Your task to perform on an android device: make emails show in primary in the gmail app Image 0: 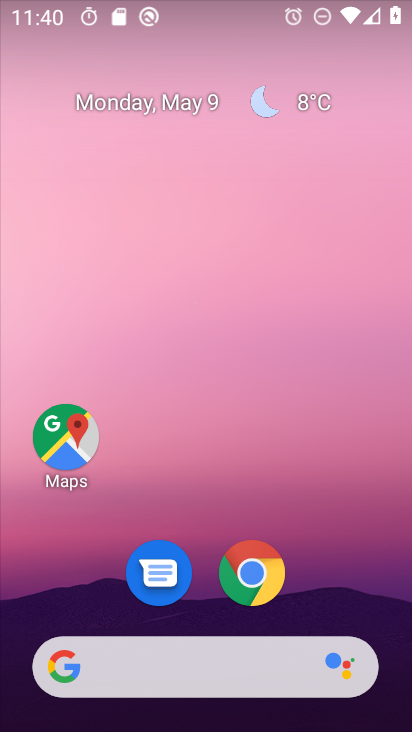
Step 0: drag from (369, 567) to (252, 231)
Your task to perform on an android device: make emails show in primary in the gmail app Image 1: 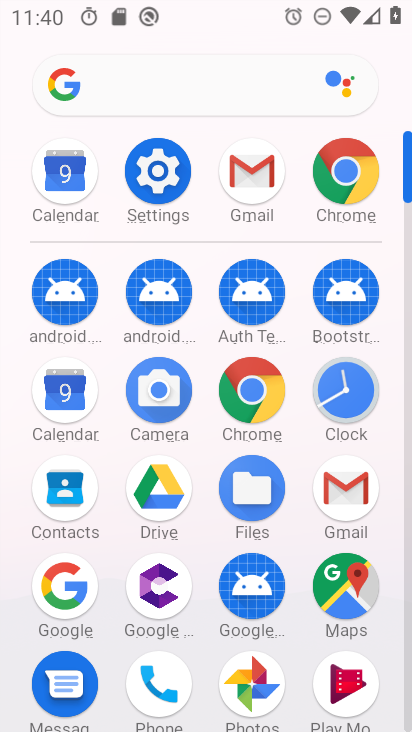
Step 1: click (344, 496)
Your task to perform on an android device: make emails show in primary in the gmail app Image 2: 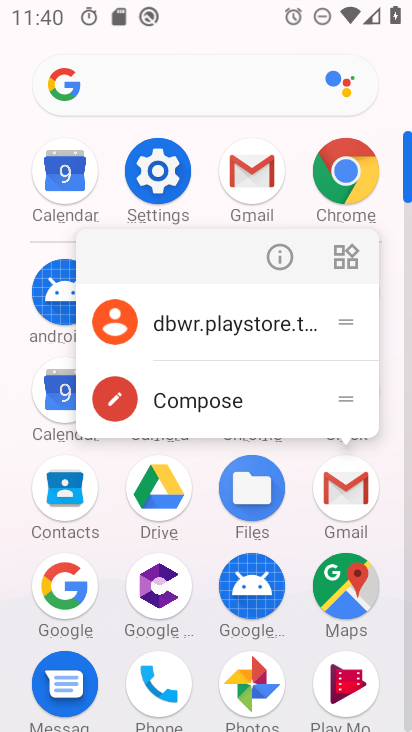
Step 2: click (344, 496)
Your task to perform on an android device: make emails show in primary in the gmail app Image 3: 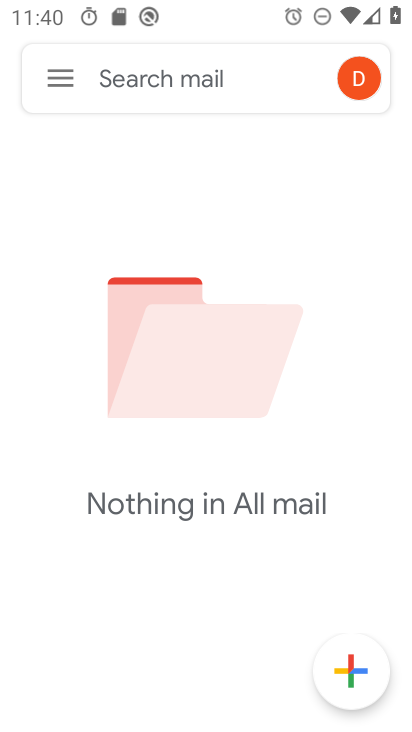
Step 3: click (52, 78)
Your task to perform on an android device: make emails show in primary in the gmail app Image 4: 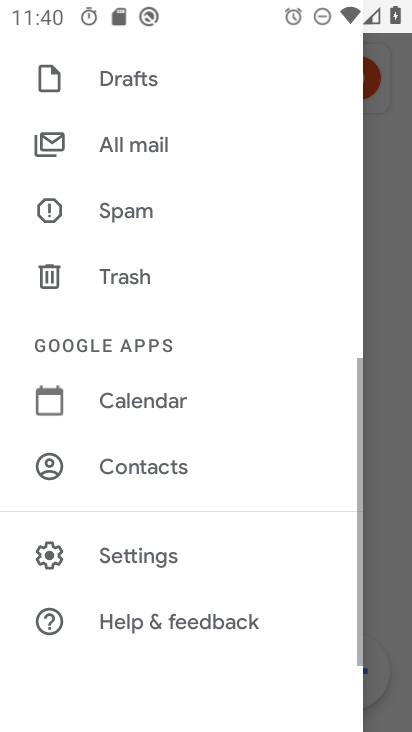
Step 4: drag from (143, 507) to (229, 272)
Your task to perform on an android device: make emails show in primary in the gmail app Image 5: 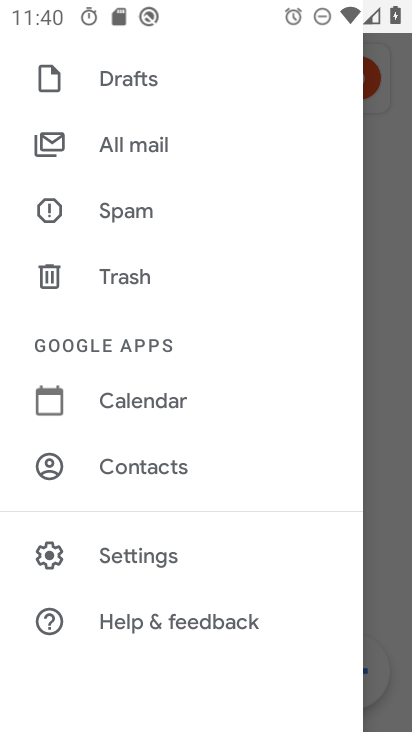
Step 5: click (144, 559)
Your task to perform on an android device: make emails show in primary in the gmail app Image 6: 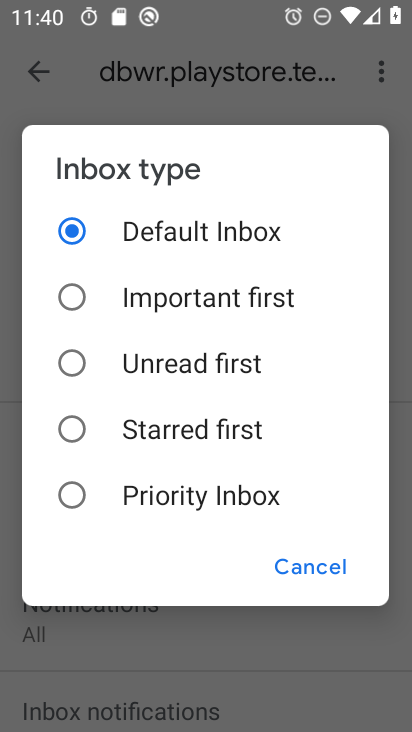
Step 6: click (317, 561)
Your task to perform on an android device: make emails show in primary in the gmail app Image 7: 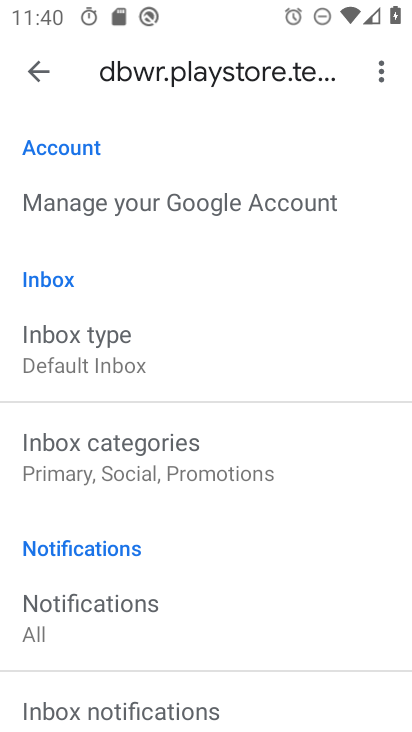
Step 7: click (163, 470)
Your task to perform on an android device: make emails show in primary in the gmail app Image 8: 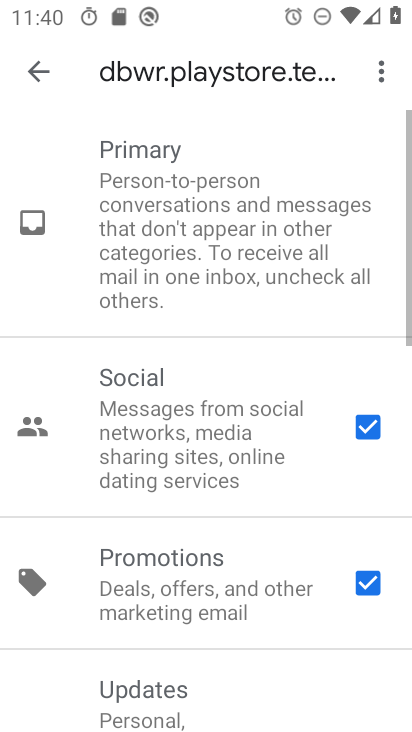
Step 8: task complete